Your task to perform on an android device: turn off location Image 0: 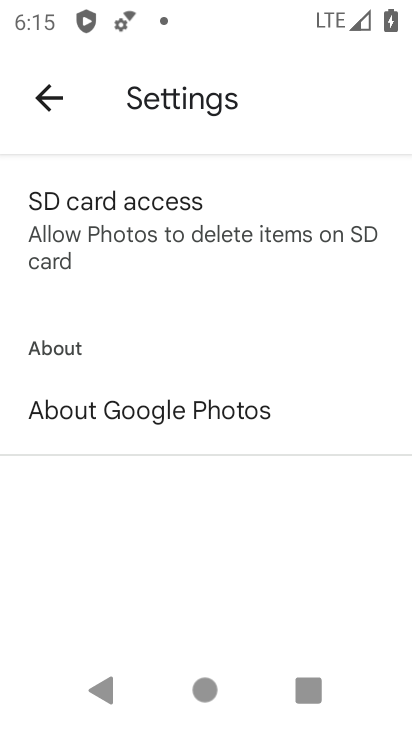
Step 0: press home button
Your task to perform on an android device: turn off location Image 1: 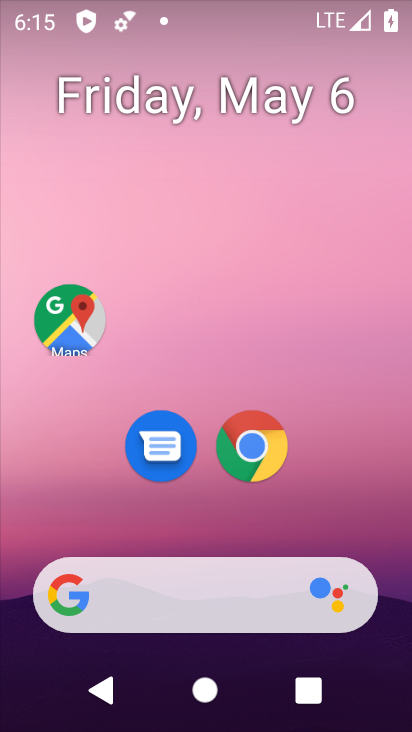
Step 1: drag from (307, 544) to (278, 203)
Your task to perform on an android device: turn off location Image 2: 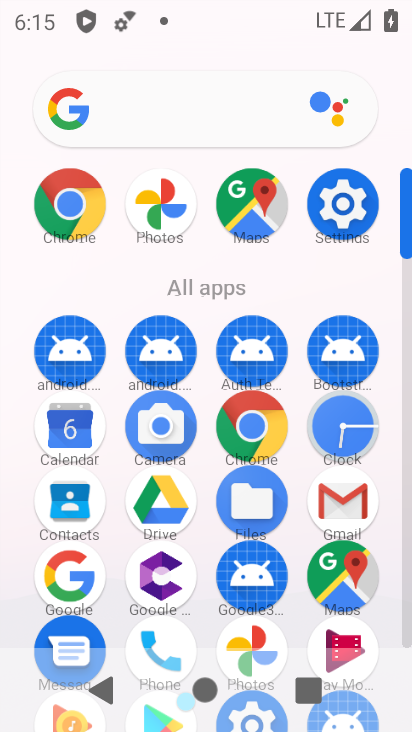
Step 2: click (347, 190)
Your task to perform on an android device: turn off location Image 3: 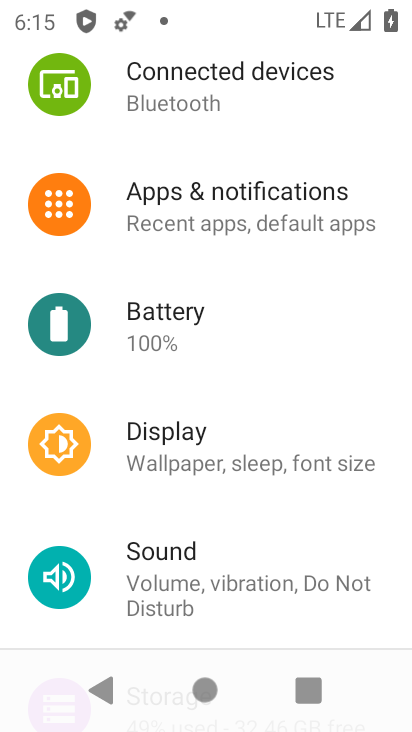
Step 3: drag from (279, 538) to (265, 201)
Your task to perform on an android device: turn off location Image 4: 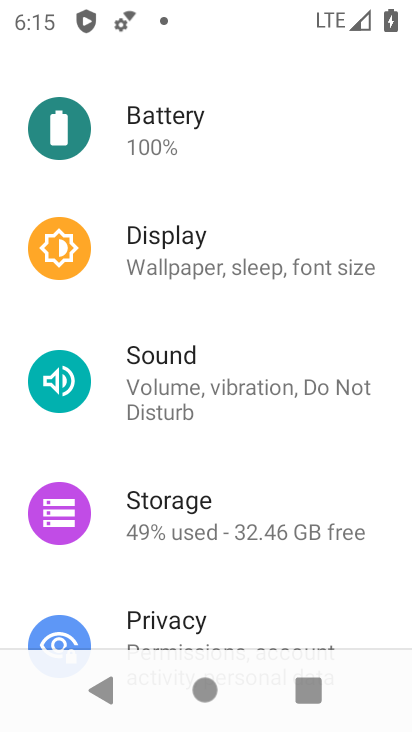
Step 4: drag from (232, 534) to (229, 187)
Your task to perform on an android device: turn off location Image 5: 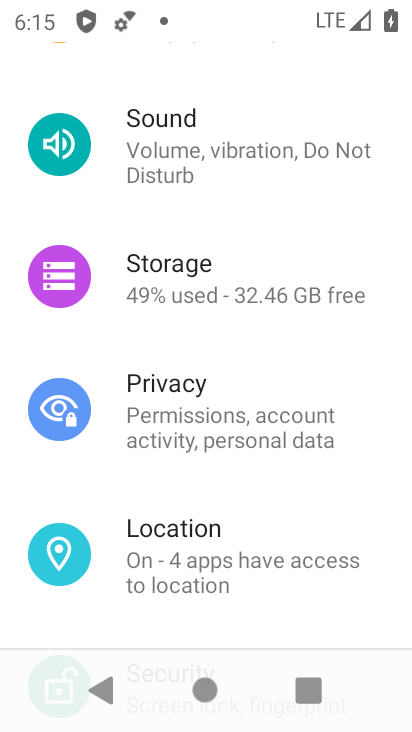
Step 5: click (197, 563)
Your task to perform on an android device: turn off location Image 6: 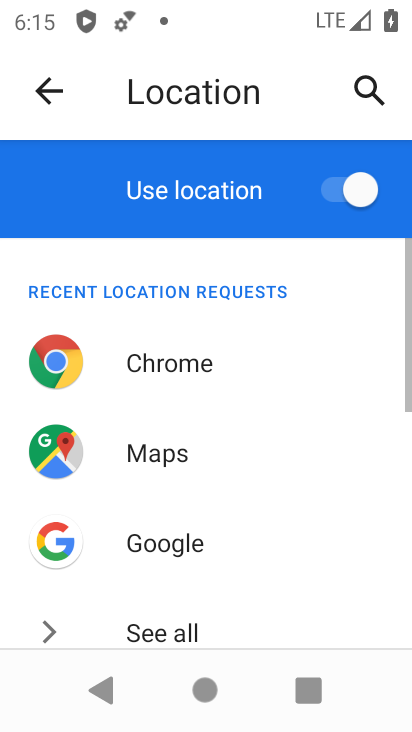
Step 6: click (341, 200)
Your task to perform on an android device: turn off location Image 7: 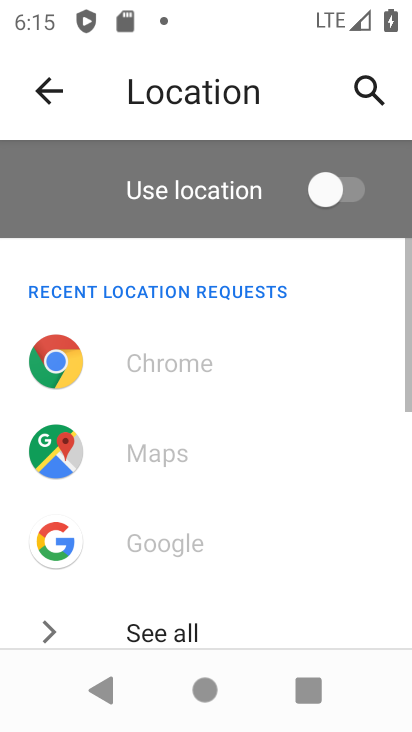
Step 7: task complete